Your task to perform on an android device: delete a single message in the gmail app Image 0: 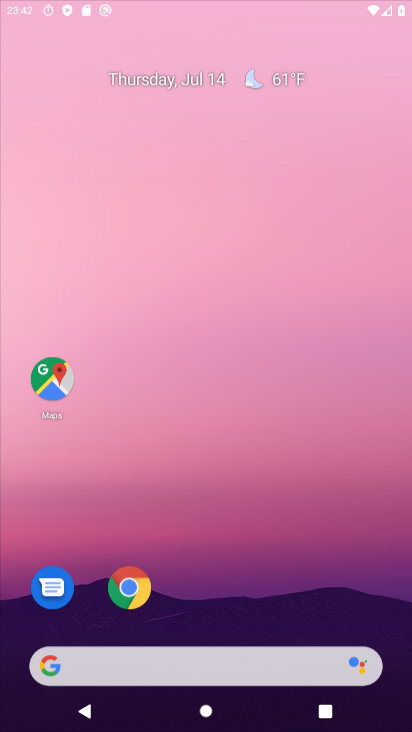
Step 0: drag from (411, 300) to (80, 13)
Your task to perform on an android device: delete a single message in the gmail app Image 1: 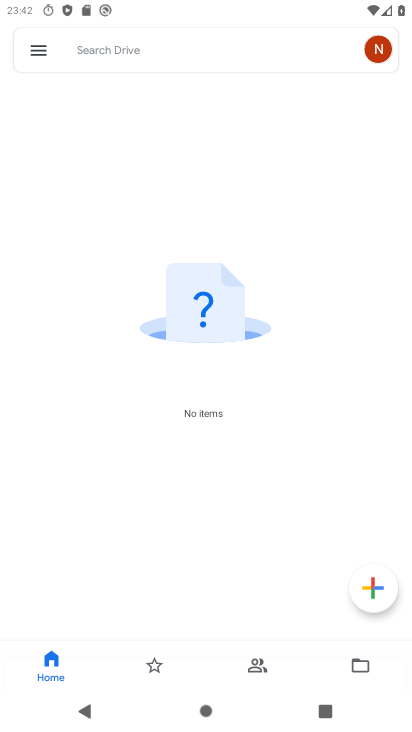
Step 1: press home button
Your task to perform on an android device: delete a single message in the gmail app Image 2: 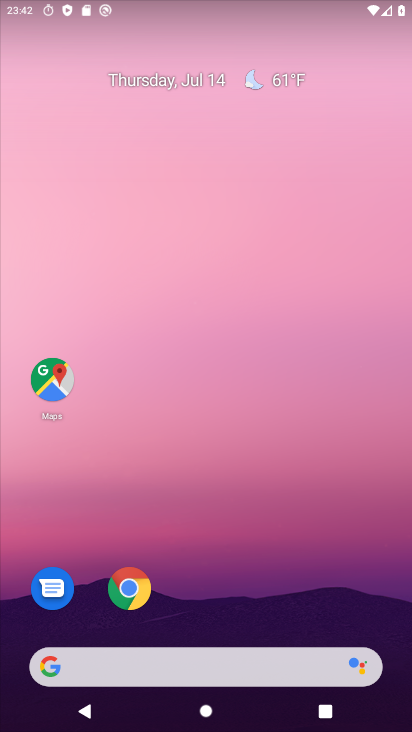
Step 2: drag from (247, 620) to (204, 6)
Your task to perform on an android device: delete a single message in the gmail app Image 3: 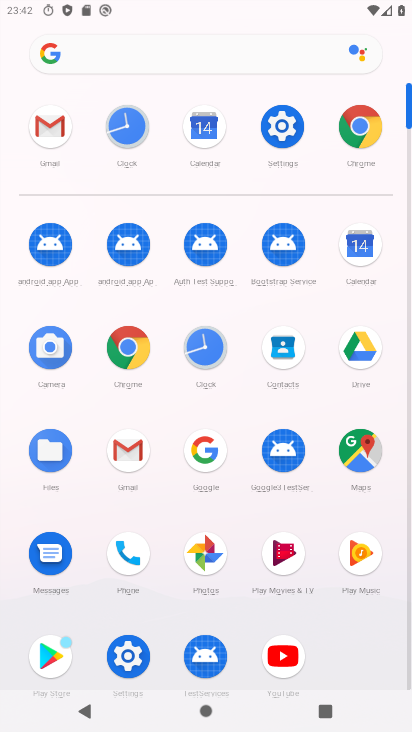
Step 3: click (134, 459)
Your task to perform on an android device: delete a single message in the gmail app Image 4: 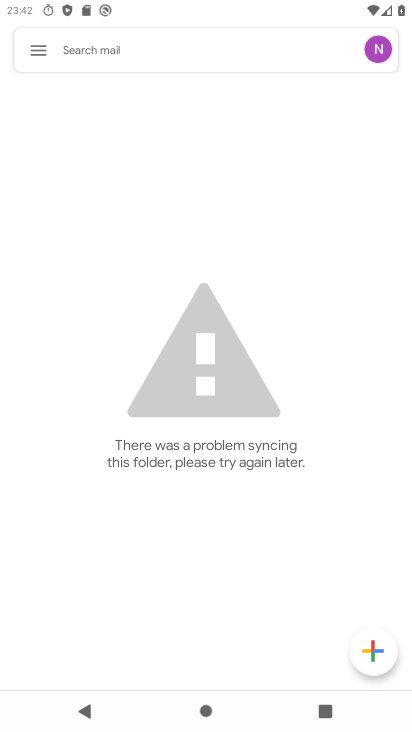
Step 4: click (34, 41)
Your task to perform on an android device: delete a single message in the gmail app Image 5: 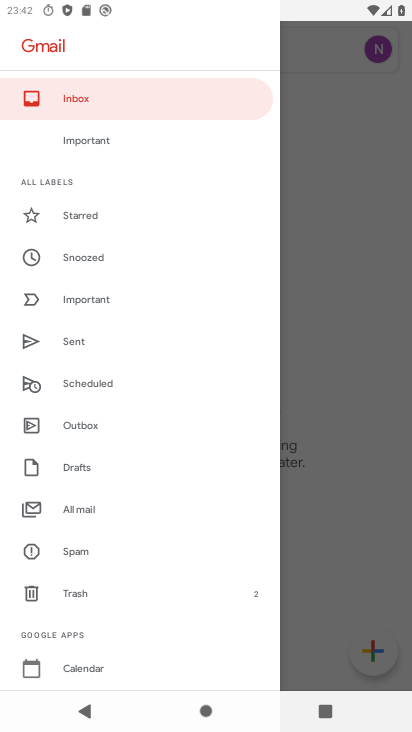
Step 5: click (349, 201)
Your task to perform on an android device: delete a single message in the gmail app Image 6: 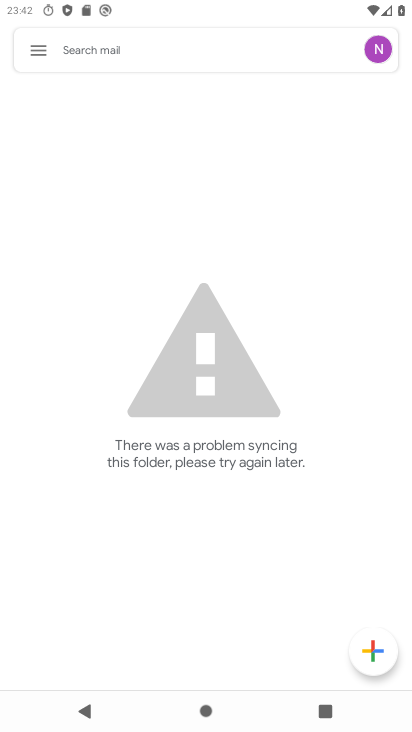
Step 6: task complete